Your task to perform on an android device: Play the last video I watched on Youtube Image 0: 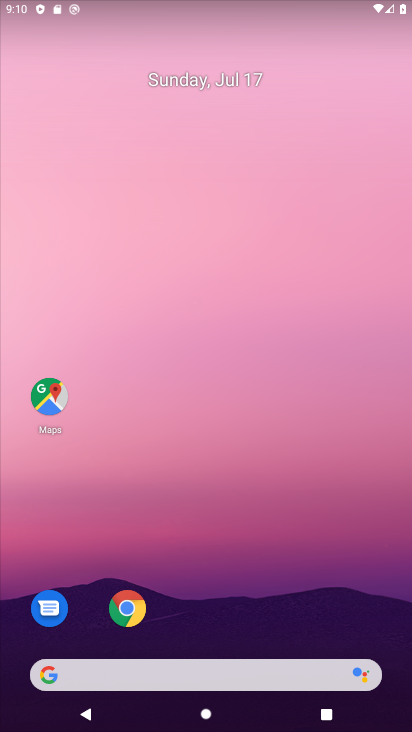
Step 0: drag from (116, 631) to (237, 17)
Your task to perform on an android device: Play the last video I watched on Youtube Image 1: 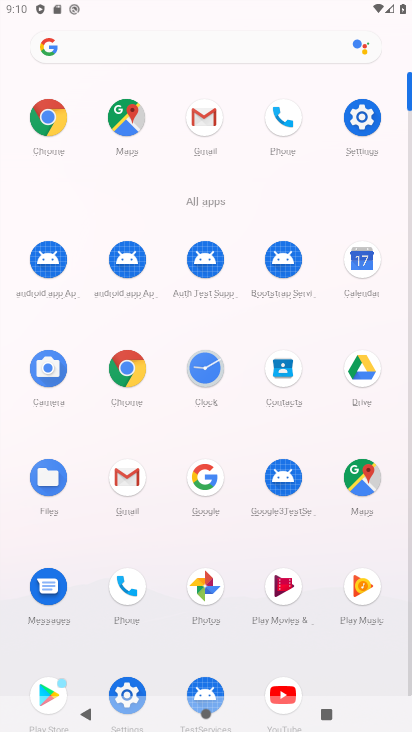
Step 1: click (280, 678)
Your task to perform on an android device: Play the last video I watched on Youtube Image 2: 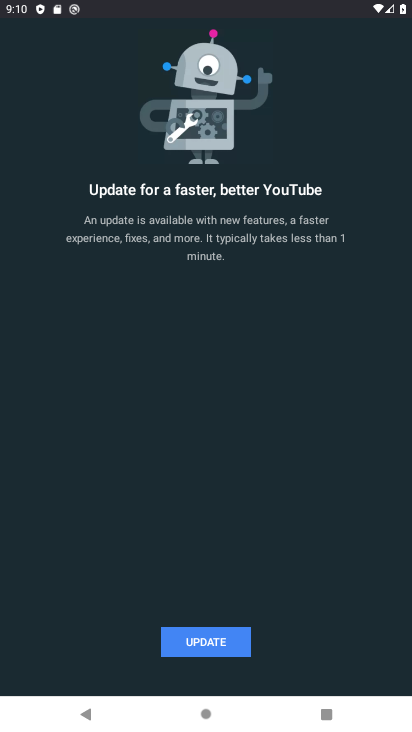
Step 2: click (215, 646)
Your task to perform on an android device: Play the last video I watched on Youtube Image 3: 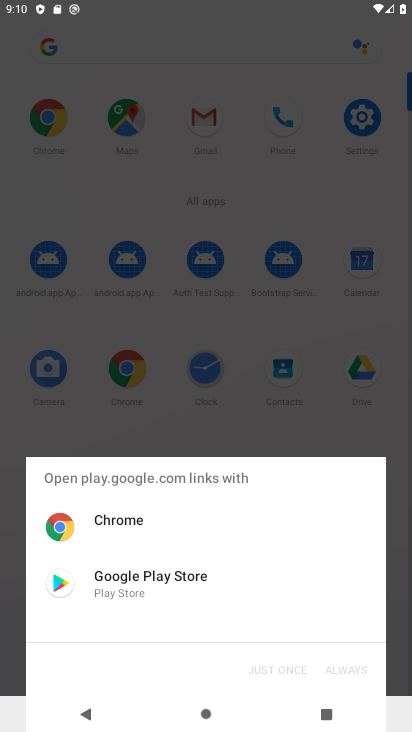
Step 3: click (250, 609)
Your task to perform on an android device: Play the last video I watched on Youtube Image 4: 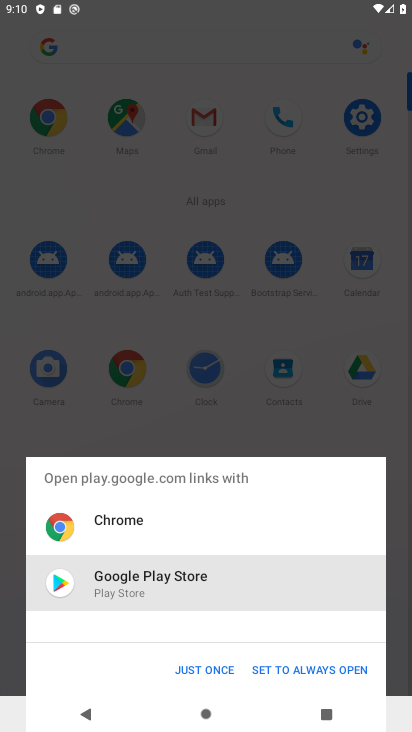
Step 4: click (225, 667)
Your task to perform on an android device: Play the last video I watched on Youtube Image 5: 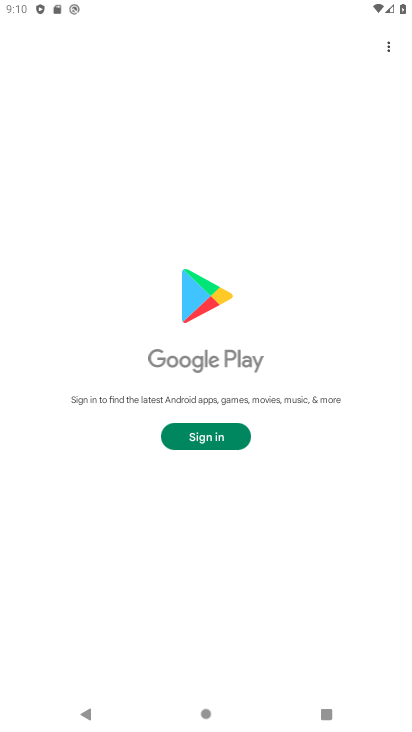
Step 5: task complete